Your task to perform on an android device: Show me recent news Image 0: 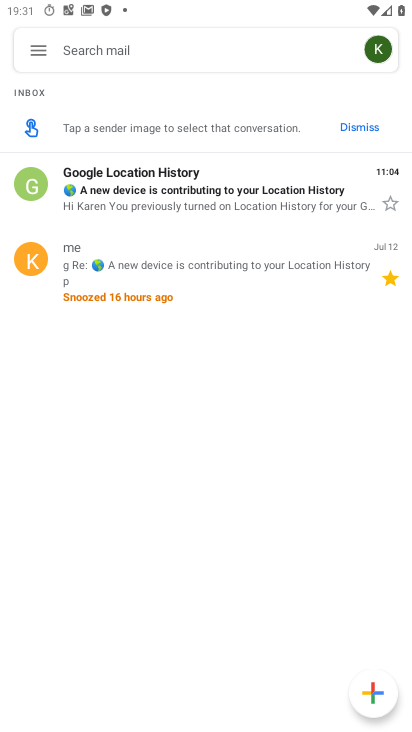
Step 0: press home button
Your task to perform on an android device: Show me recent news Image 1: 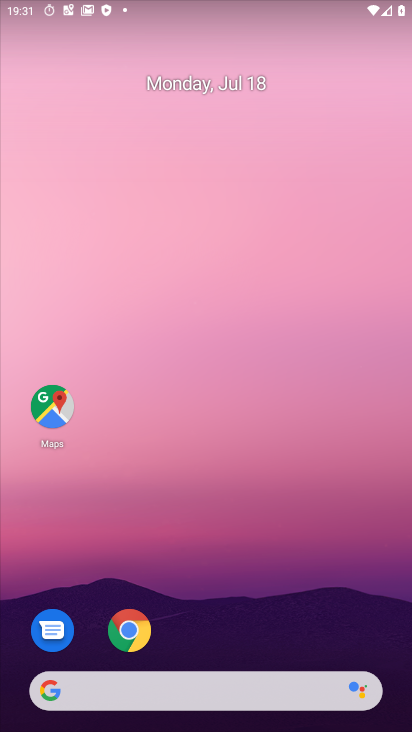
Step 1: drag from (270, 559) to (287, 21)
Your task to perform on an android device: Show me recent news Image 2: 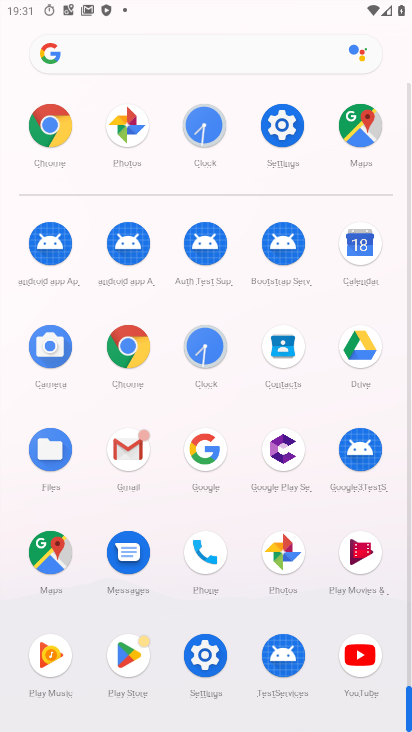
Step 2: click (42, 129)
Your task to perform on an android device: Show me recent news Image 3: 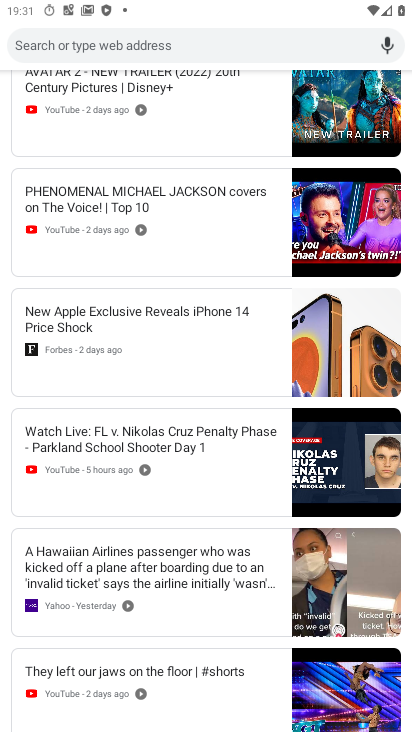
Step 3: task complete